Your task to perform on an android device: Search for the best books of all time on Goodreads Image 0: 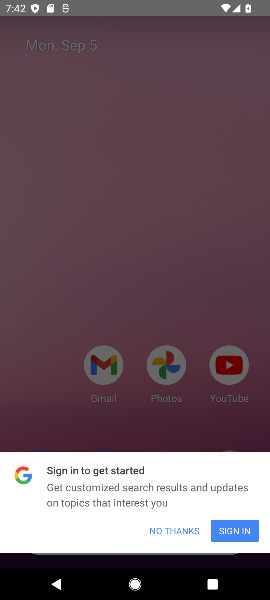
Step 0: press home button
Your task to perform on an android device: Search for the best books of all time on Goodreads Image 1: 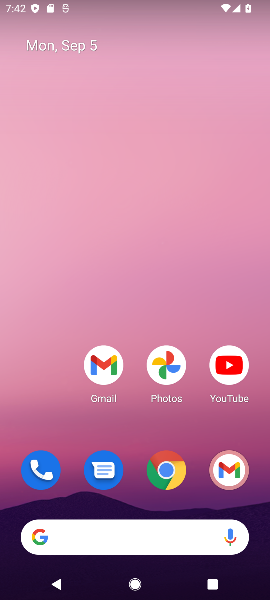
Step 1: click (124, 527)
Your task to perform on an android device: Search for the best books of all time on Goodreads Image 2: 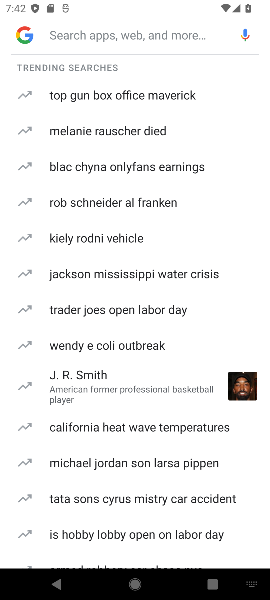
Step 2: type "goodreads"
Your task to perform on an android device: Search for the best books of all time on Goodreads Image 3: 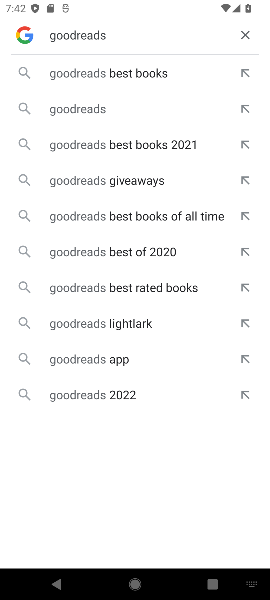
Step 3: click (65, 113)
Your task to perform on an android device: Search for the best books of all time on Goodreads Image 4: 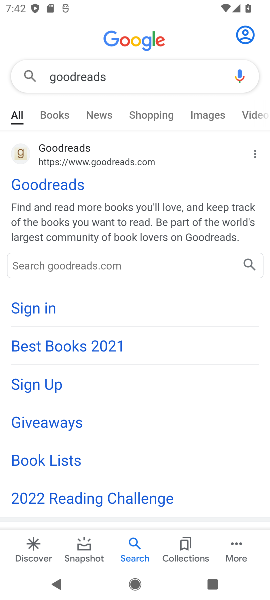
Step 4: click (48, 185)
Your task to perform on an android device: Search for the best books of all time on Goodreads Image 5: 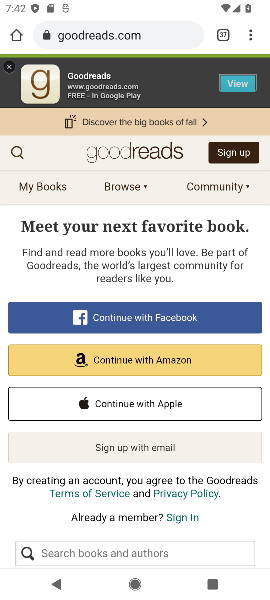
Step 5: click (18, 153)
Your task to perform on an android device: Search for the best books of all time on Goodreads Image 6: 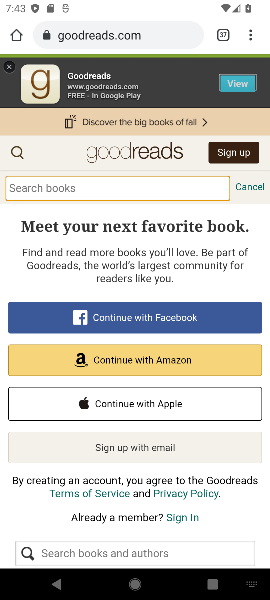
Step 6: type "best books of all times"
Your task to perform on an android device: Search for the best books of all time on Goodreads Image 7: 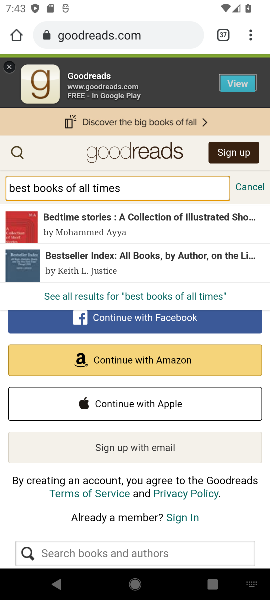
Step 7: click (148, 291)
Your task to perform on an android device: Search for the best books of all time on Goodreads Image 8: 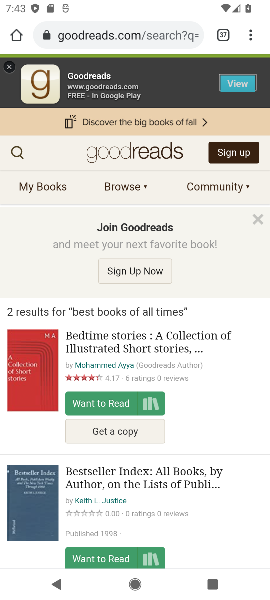
Step 8: task complete